Your task to perform on an android device: make emails show in primary in the gmail app Image 0: 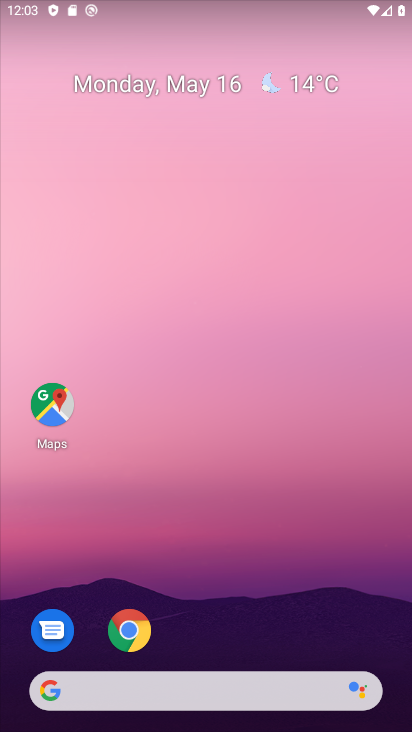
Step 0: drag from (274, 619) to (237, 256)
Your task to perform on an android device: make emails show in primary in the gmail app Image 1: 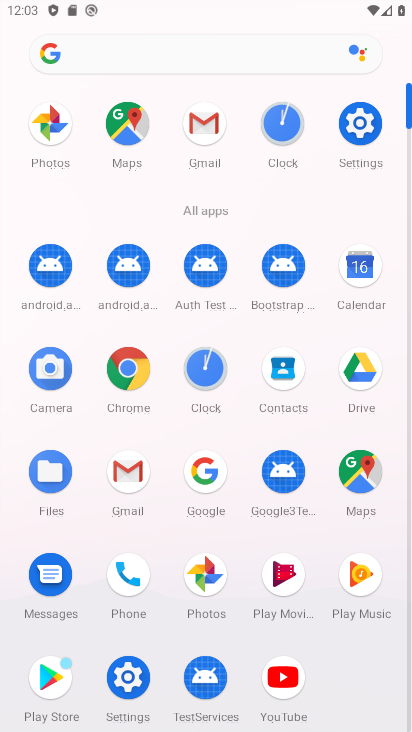
Step 1: click (127, 476)
Your task to perform on an android device: make emails show in primary in the gmail app Image 2: 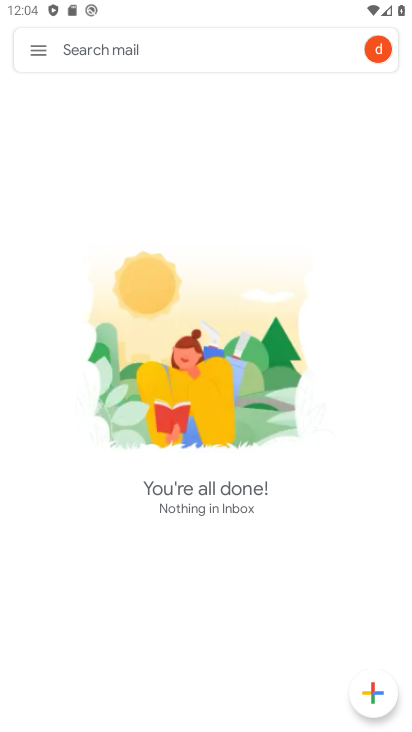
Step 2: click (33, 56)
Your task to perform on an android device: make emails show in primary in the gmail app Image 3: 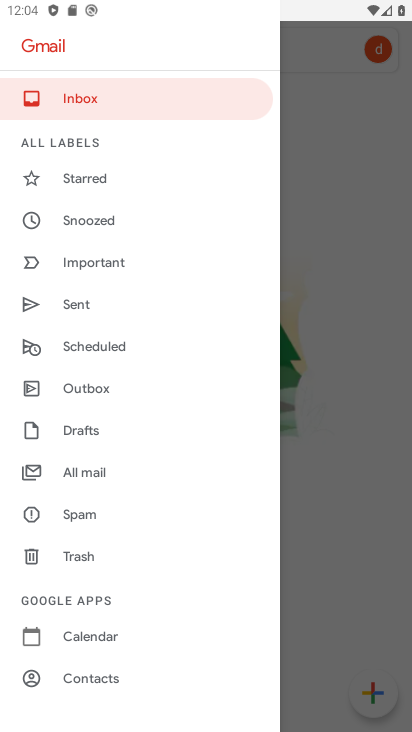
Step 3: drag from (123, 570) to (116, 231)
Your task to perform on an android device: make emails show in primary in the gmail app Image 4: 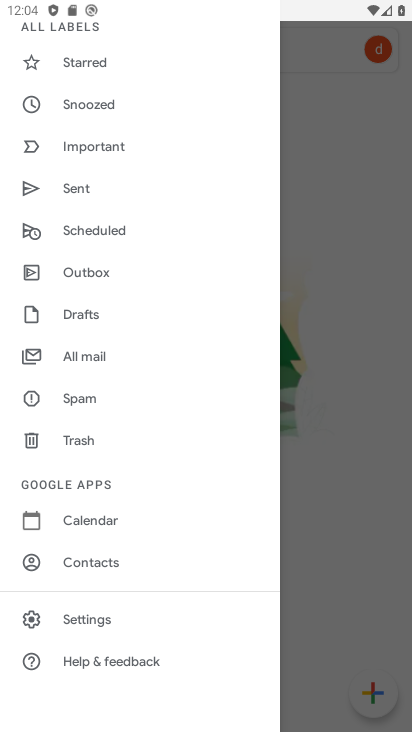
Step 4: click (85, 614)
Your task to perform on an android device: make emails show in primary in the gmail app Image 5: 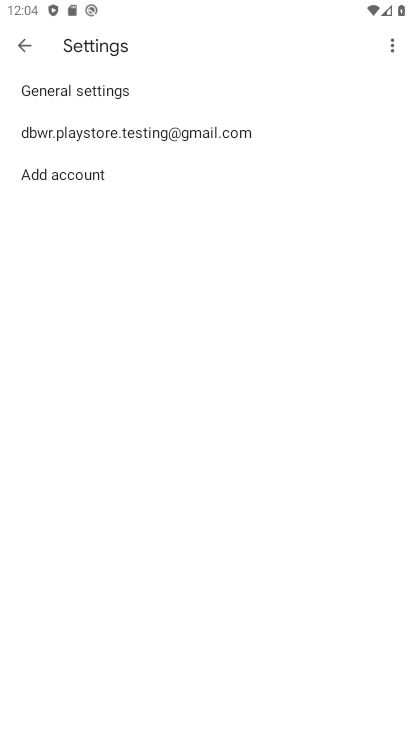
Step 5: click (76, 138)
Your task to perform on an android device: make emails show in primary in the gmail app Image 6: 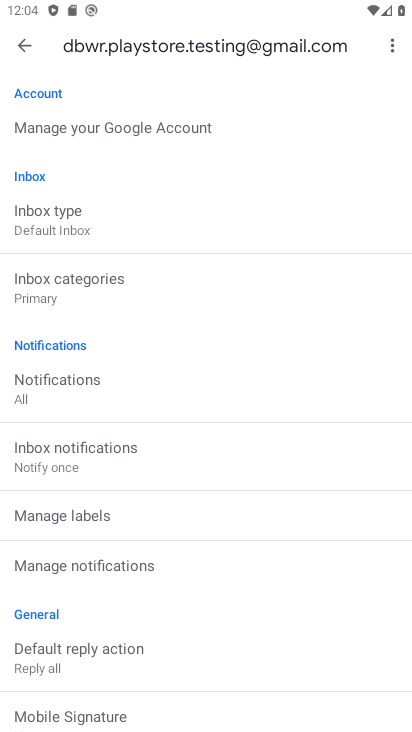
Step 6: drag from (163, 580) to (152, 201)
Your task to perform on an android device: make emails show in primary in the gmail app Image 7: 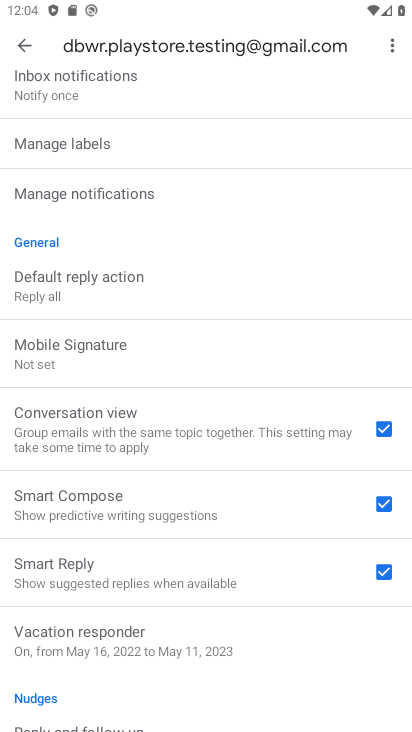
Step 7: drag from (171, 693) to (80, 663)
Your task to perform on an android device: make emails show in primary in the gmail app Image 8: 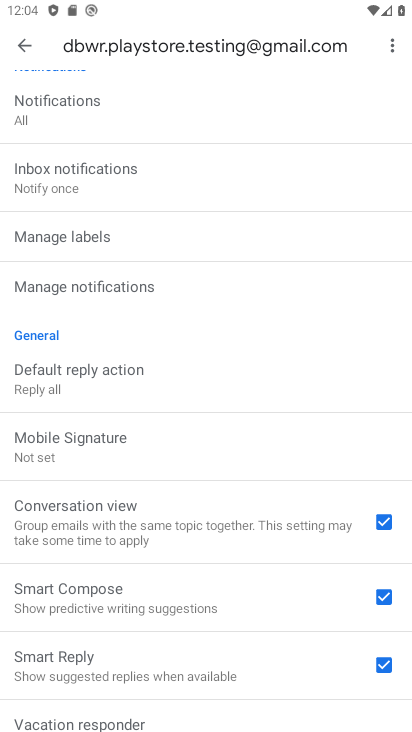
Step 8: drag from (124, 126) to (76, 545)
Your task to perform on an android device: make emails show in primary in the gmail app Image 9: 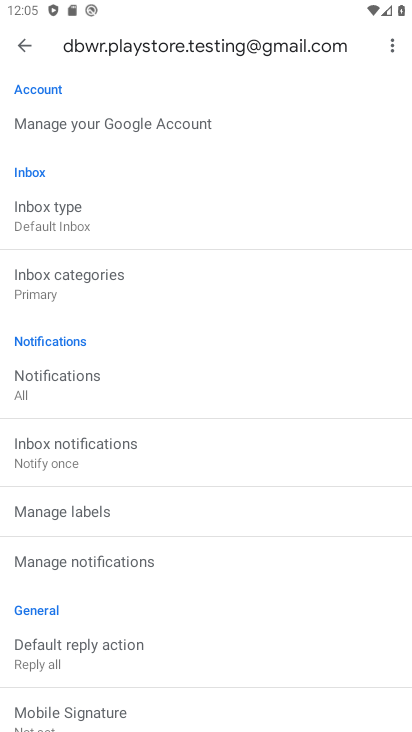
Step 9: click (83, 220)
Your task to perform on an android device: make emails show in primary in the gmail app Image 10: 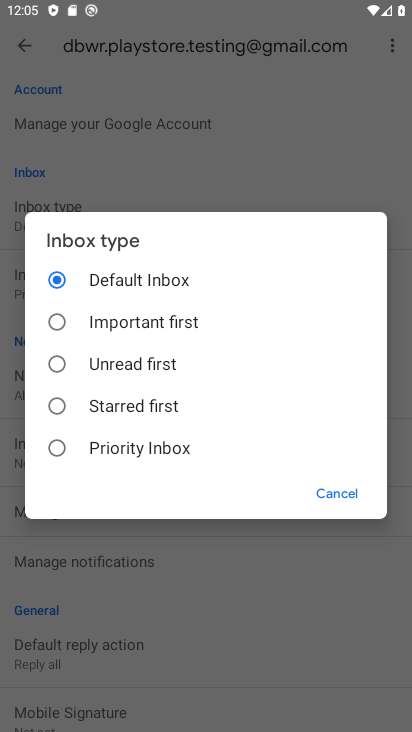
Step 10: click (133, 146)
Your task to perform on an android device: make emails show in primary in the gmail app Image 11: 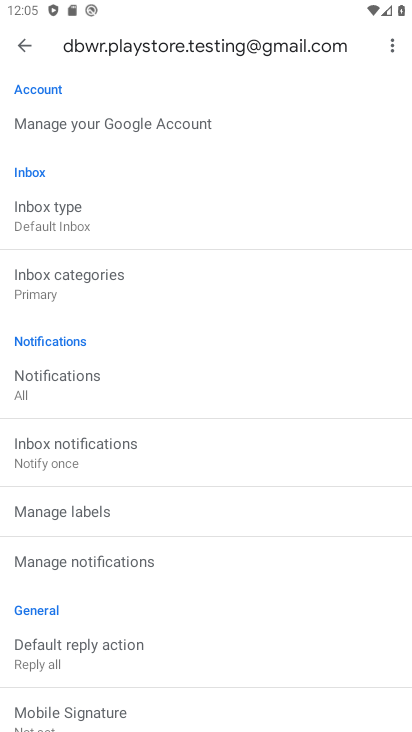
Step 11: task complete